Your task to perform on an android device: Open battery settings Image 0: 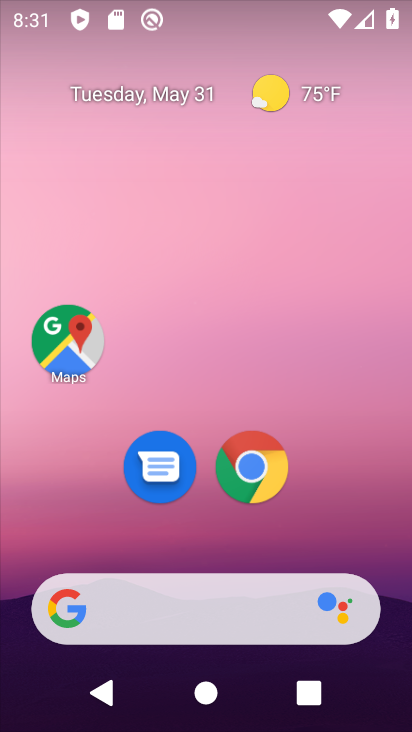
Step 0: drag from (218, 479) to (260, 12)
Your task to perform on an android device: Open battery settings Image 1: 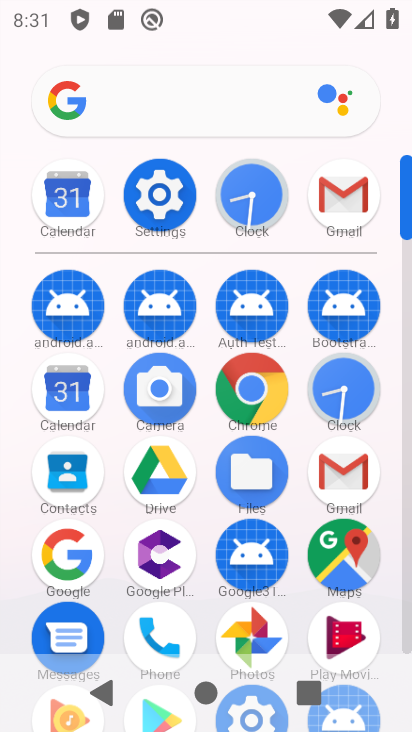
Step 1: drag from (153, 265) to (175, 134)
Your task to perform on an android device: Open battery settings Image 2: 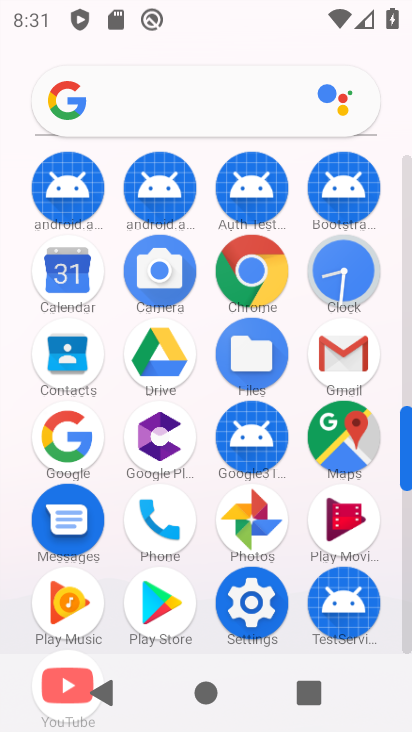
Step 2: drag from (196, 165) to (234, 425)
Your task to perform on an android device: Open battery settings Image 3: 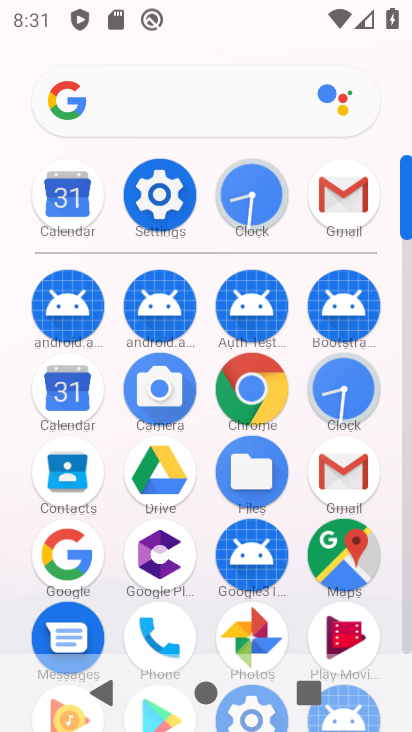
Step 3: click (159, 203)
Your task to perform on an android device: Open battery settings Image 4: 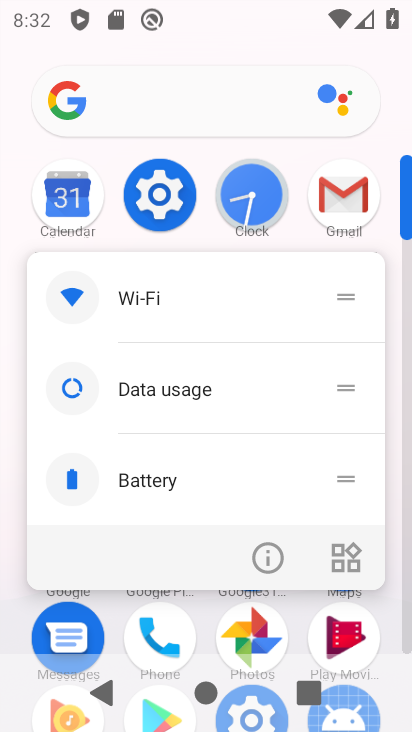
Step 4: click (261, 562)
Your task to perform on an android device: Open battery settings Image 5: 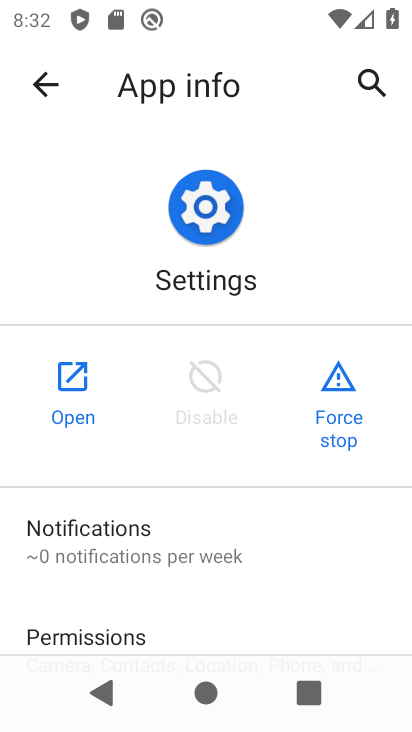
Step 5: click (64, 381)
Your task to perform on an android device: Open battery settings Image 6: 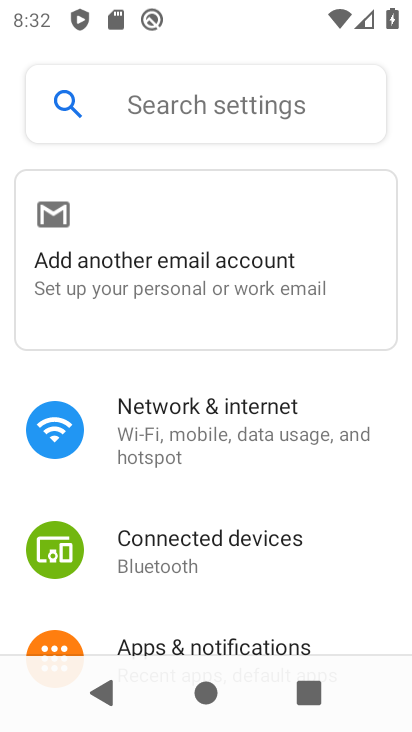
Step 6: drag from (248, 593) to (306, 105)
Your task to perform on an android device: Open battery settings Image 7: 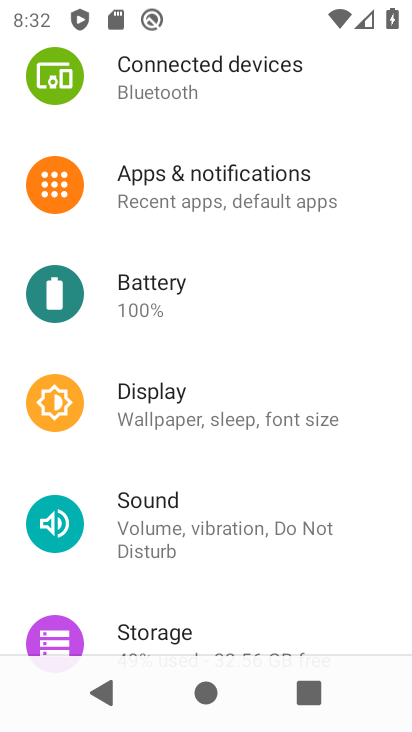
Step 7: click (196, 282)
Your task to perform on an android device: Open battery settings Image 8: 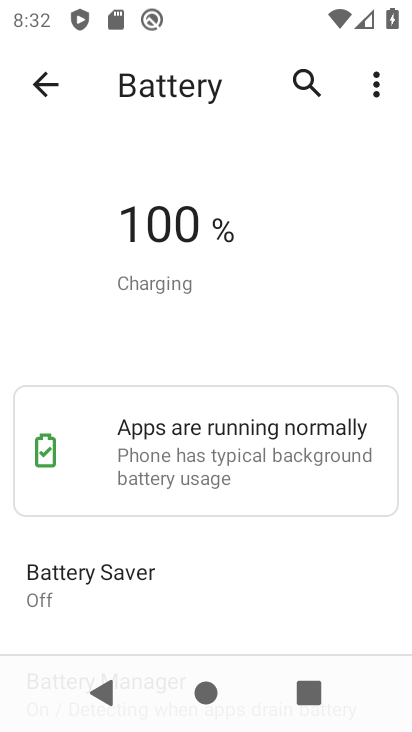
Step 8: task complete